Your task to perform on an android device: turn off location history Image 0: 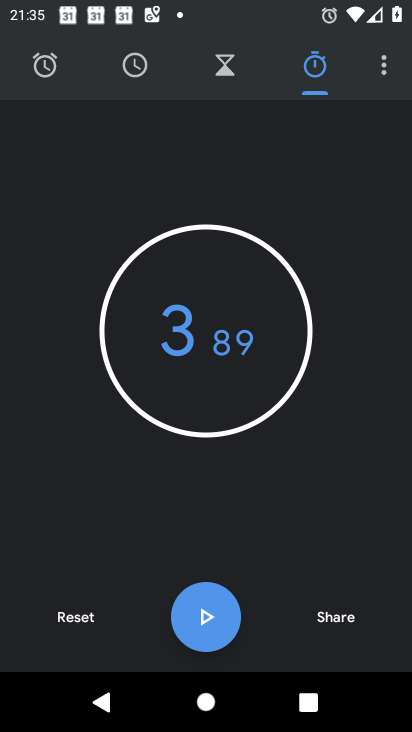
Step 0: press home button
Your task to perform on an android device: turn off location history Image 1: 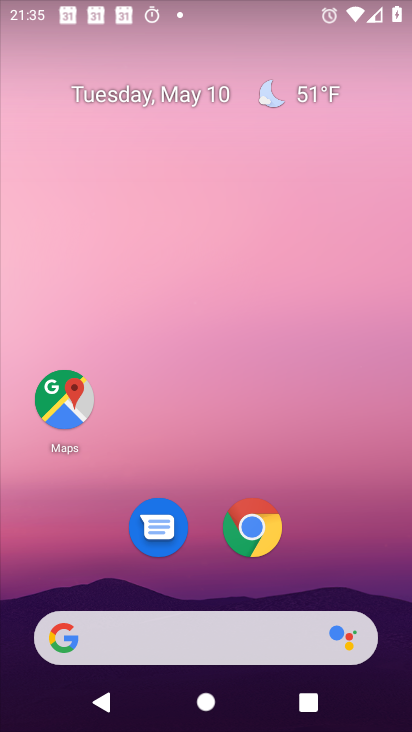
Step 1: drag from (217, 608) to (187, 22)
Your task to perform on an android device: turn off location history Image 2: 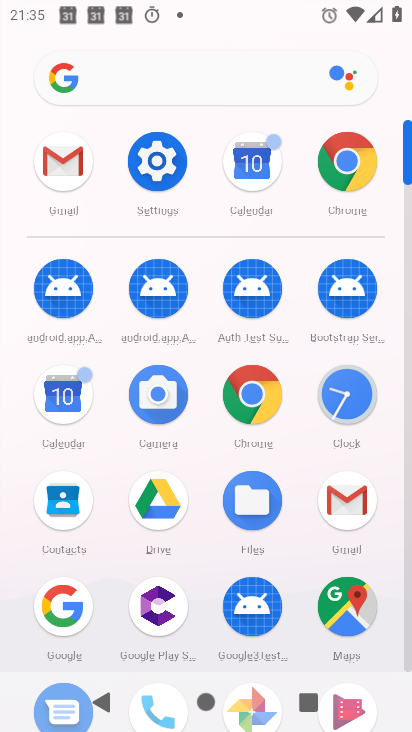
Step 2: click (152, 159)
Your task to perform on an android device: turn off location history Image 3: 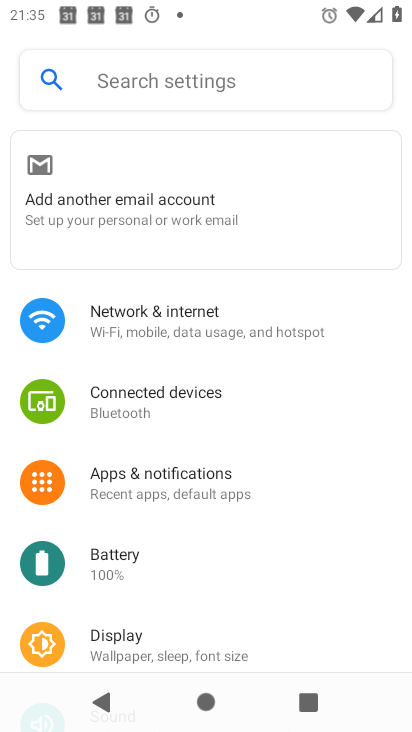
Step 3: drag from (203, 545) to (103, 10)
Your task to perform on an android device: turn off location history Image 4: 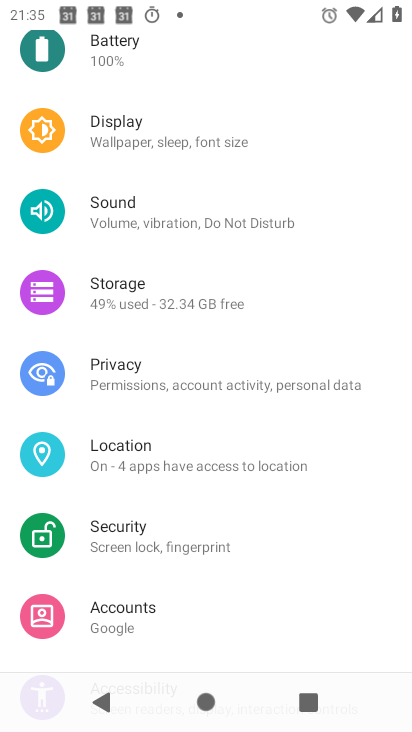
Step 4: click (153, 453)
Your task to perform on an android device: turn off location history Image 5: 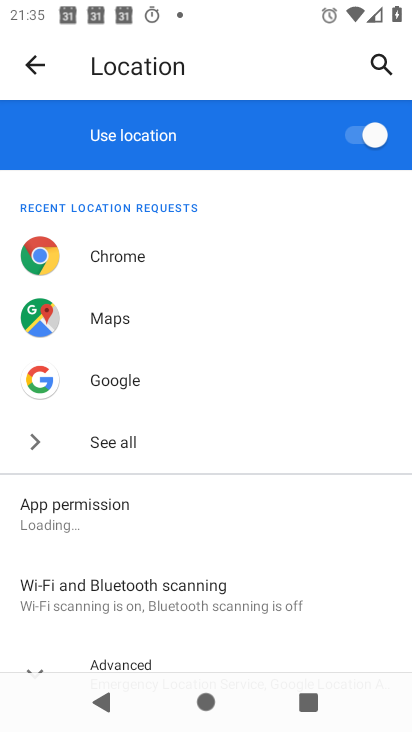
Step 5: drag from (146, 596) to (102, 266)
Your task to perform on an android device: turn off location history Image 6: 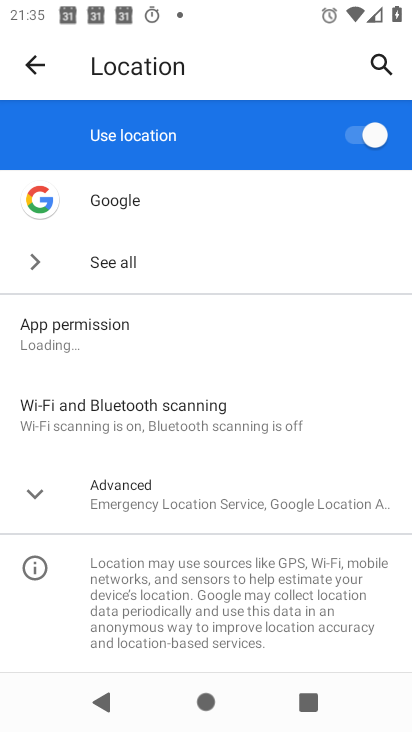
Step 6: click (100, 477)
Your task to perform on an android device: turn off location history Image 7: 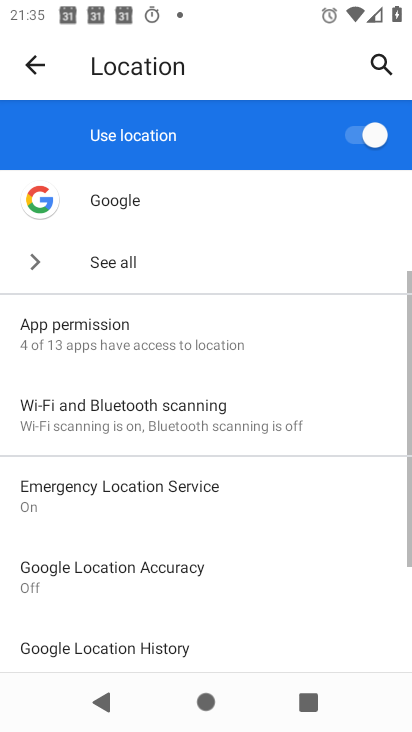
Step 7: drag from (113, 483) to (87, 189)
Your task to perform on an android device: turn off location history Image 8: 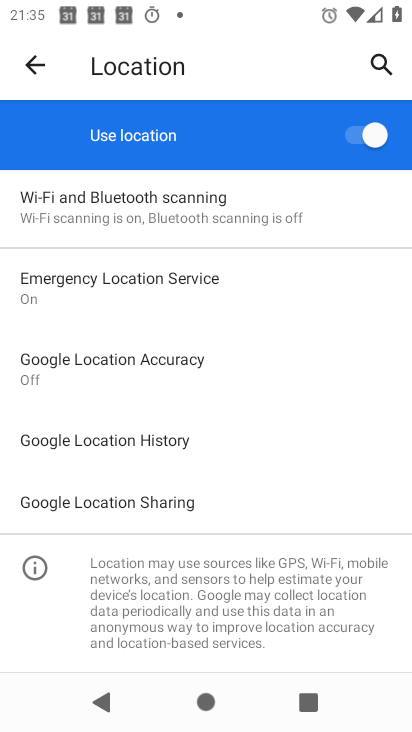
Step 8: click (110, 437)
Your task to perform on an android device: turn off location history Image 9: 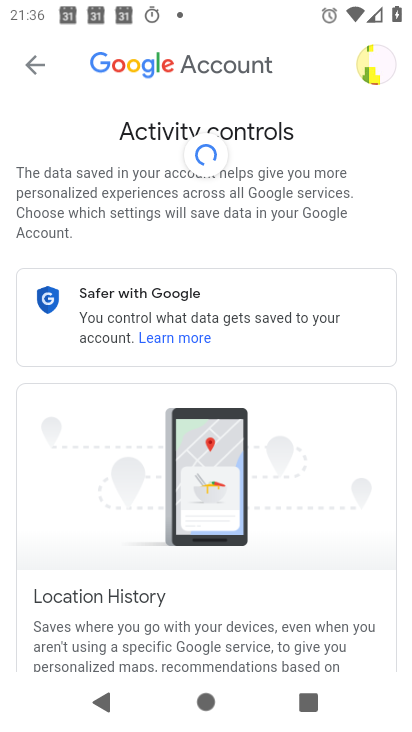
Step 9: drag from (307, 492) to (236, 10)
Your task to perform on an android device: turn off location history Image 10: 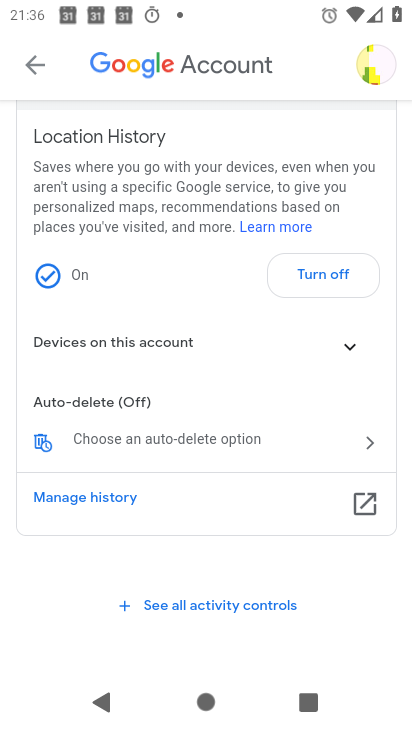
Step 10: click (294, 291)
Your task to perform on an android device: turn off location history Image 11: 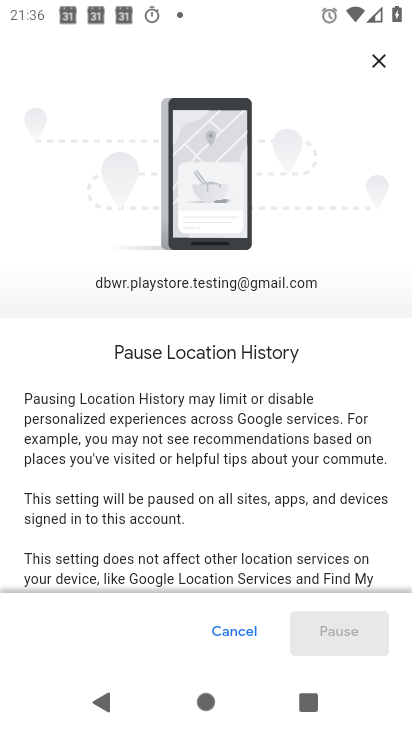
Step 11: drag from (312, 575) to (171, 13)
Your task to perform on an android device: turn off location history Image 12: 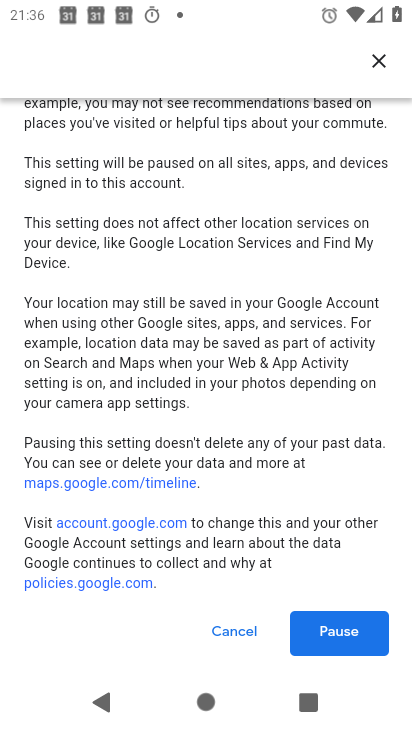
Step 12: click (351, 619)
Your task to perform on an android device: turn off location history Image 13: 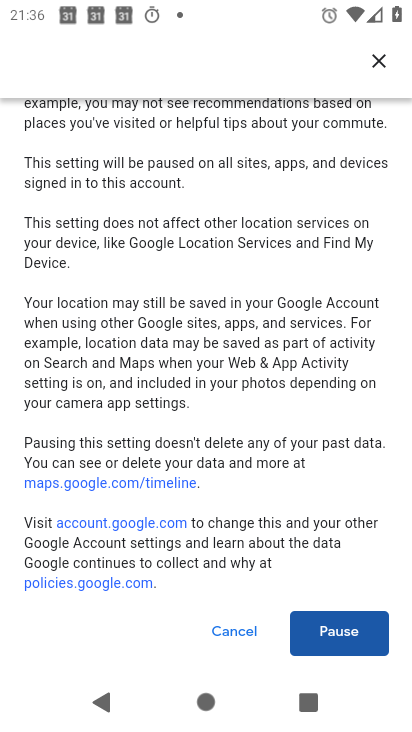
Step 13: task complete